Your task to perform on an android device: allow notifications from all sites in the chrome app Image 0: 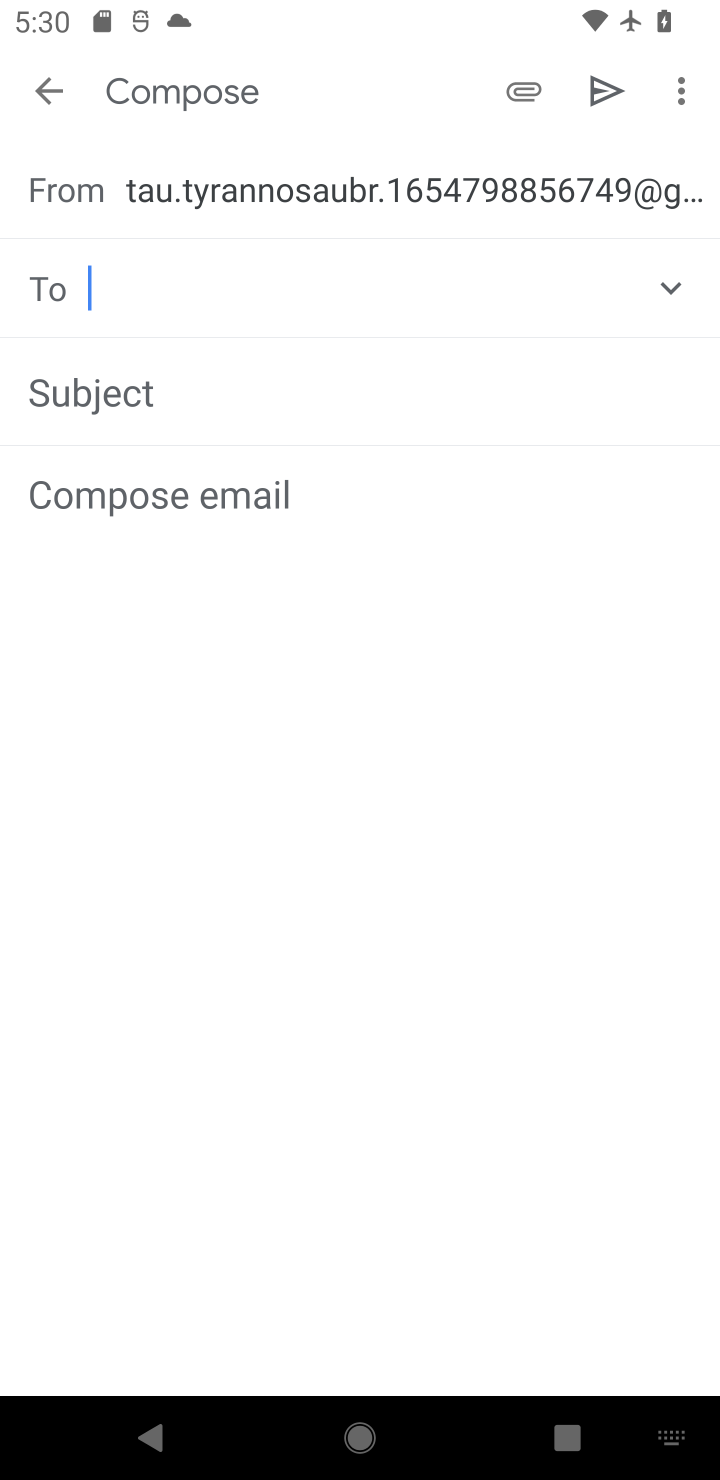
Step 0: press home button
Your task to perform on an android device: allow notifications from all sites in the chrome app Image 1: 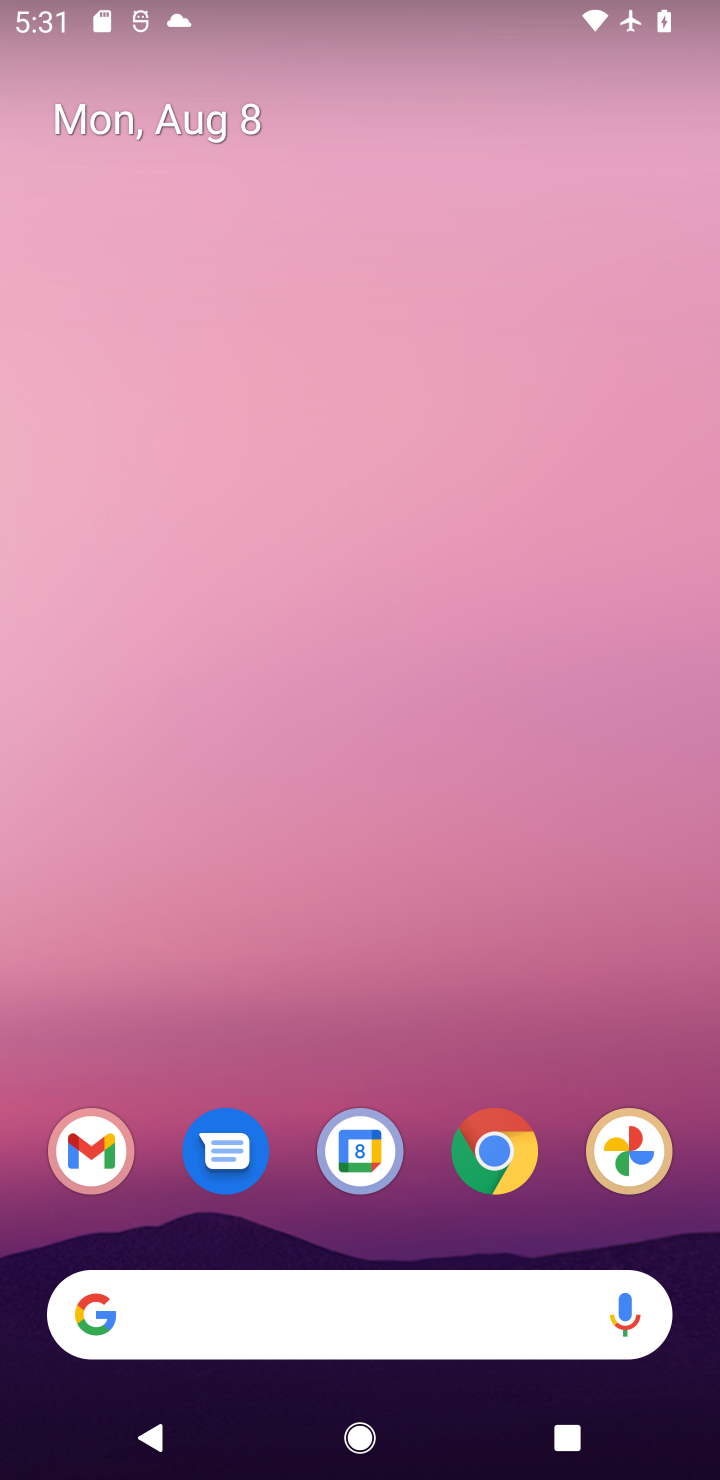
Step 1: click (468, 1173)
Your task to perform on an android device: allow notifications from all sites in the chrome app Image 2: 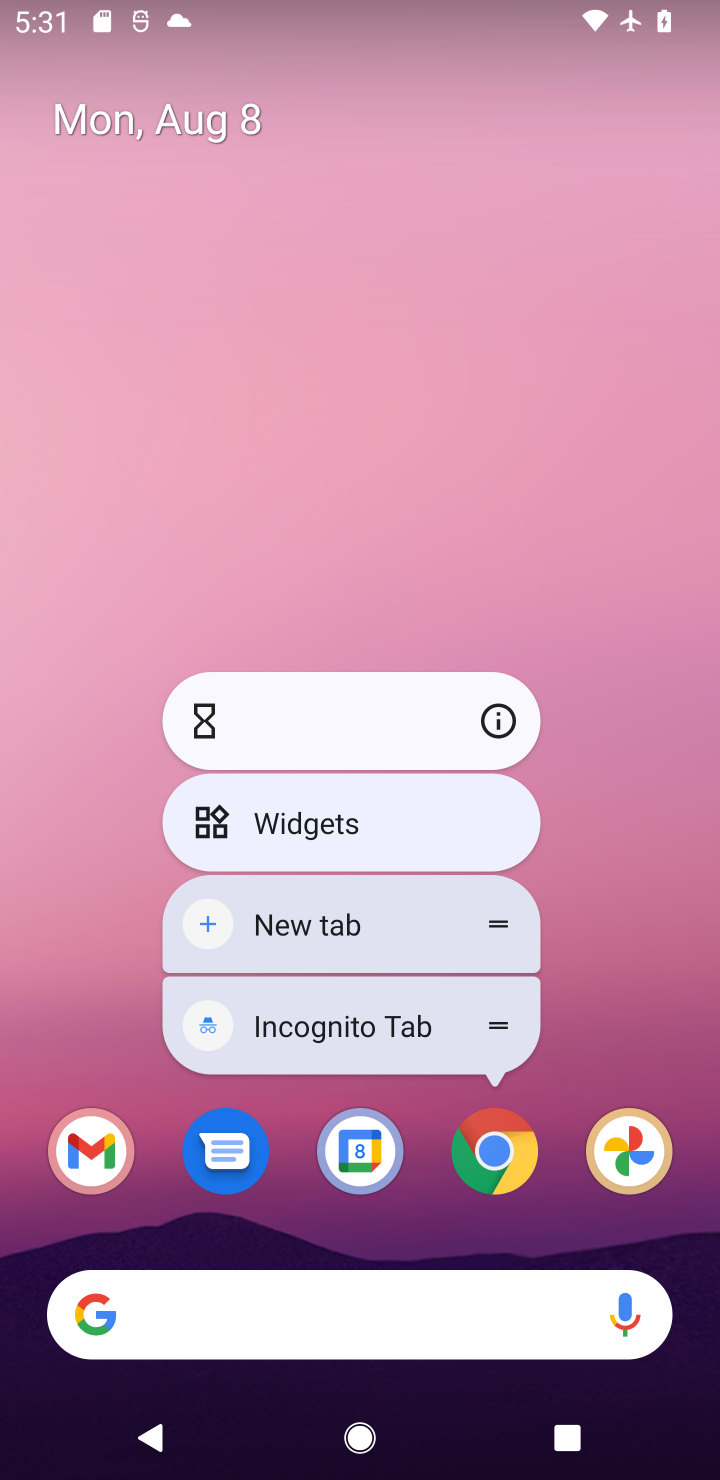
Step 2: click (468, 1173)
Your task to perform on an android device: allow notifications from all sites in the chrome app Image 3: 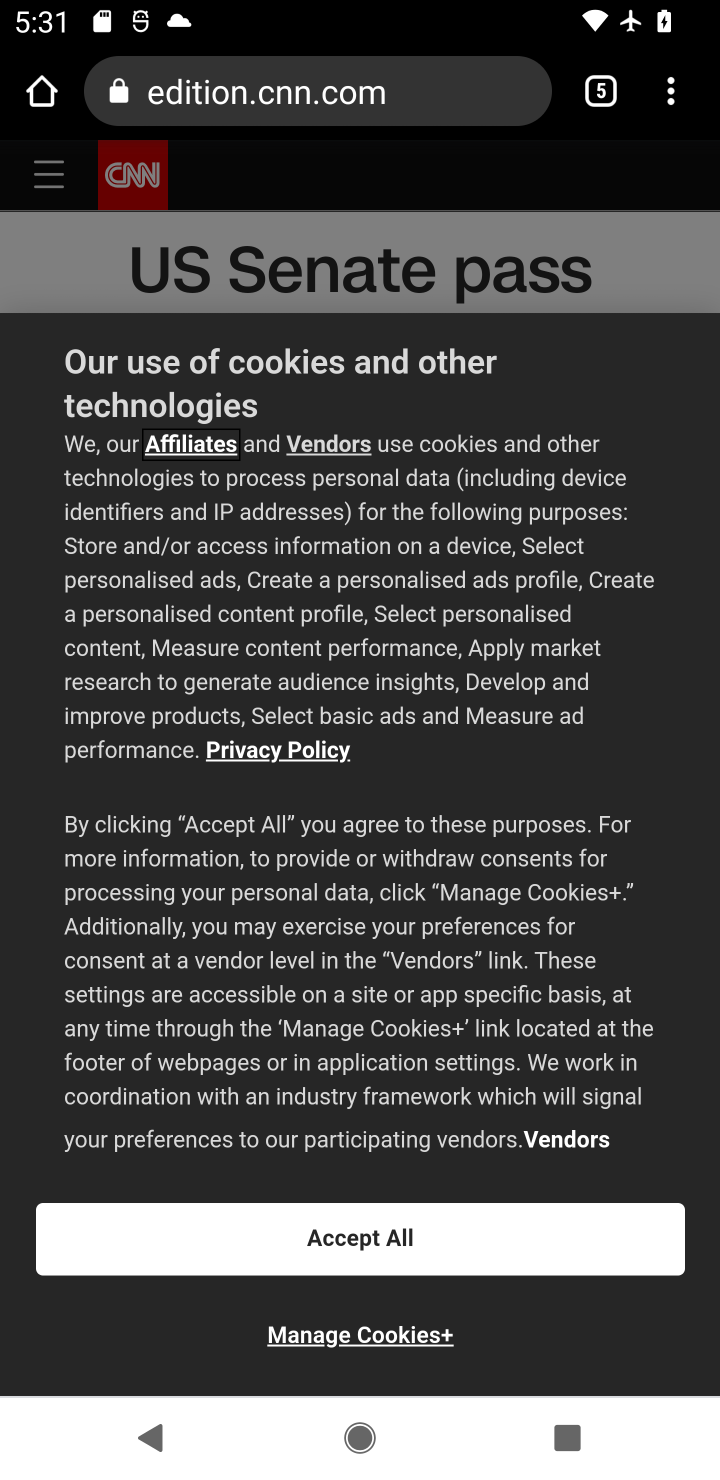
Step 3: click (685, 95)
Your task to perform on an android device: allow notifications from all sites in the chrome app Image 4: 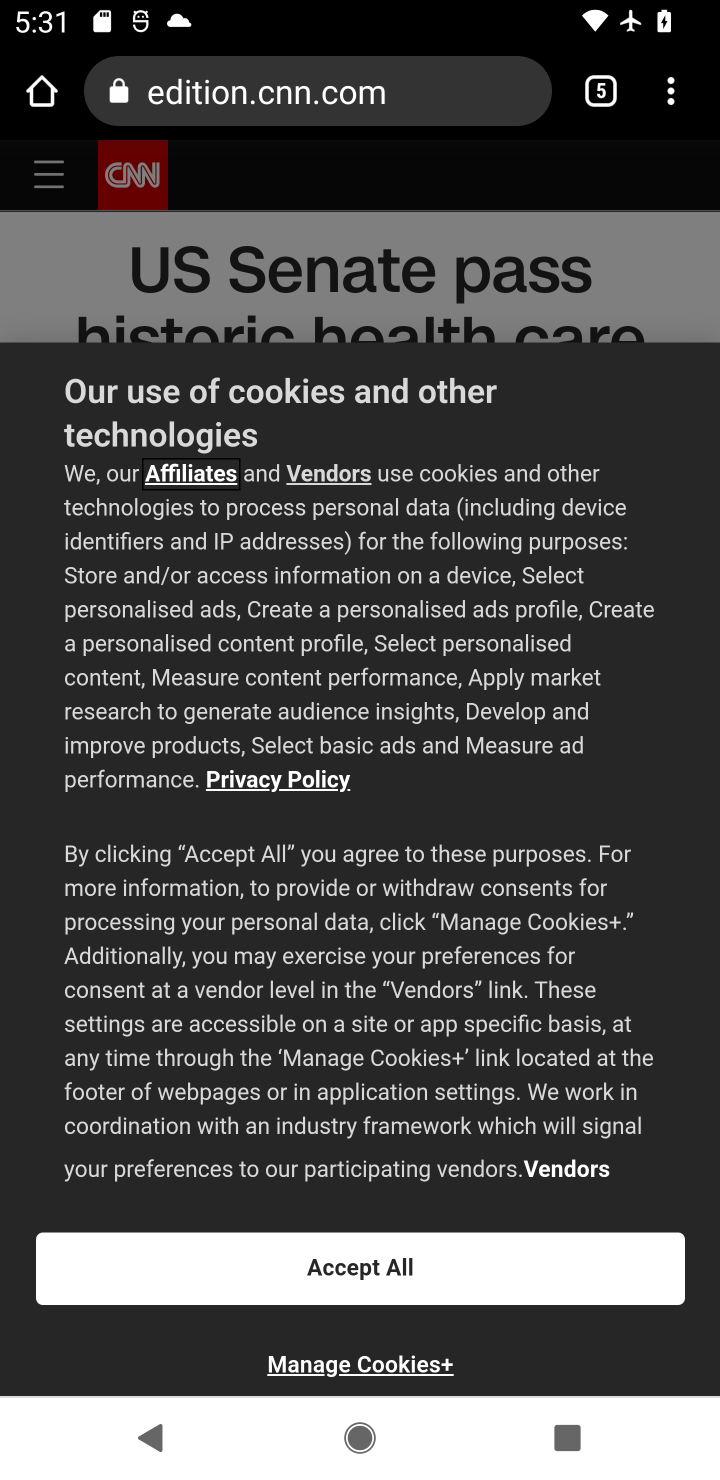
Step 4: drag from (666, 102) to (428, 1275)
Your task to perform on an android device: allow notifications from all sites in the chrome app Image 5: 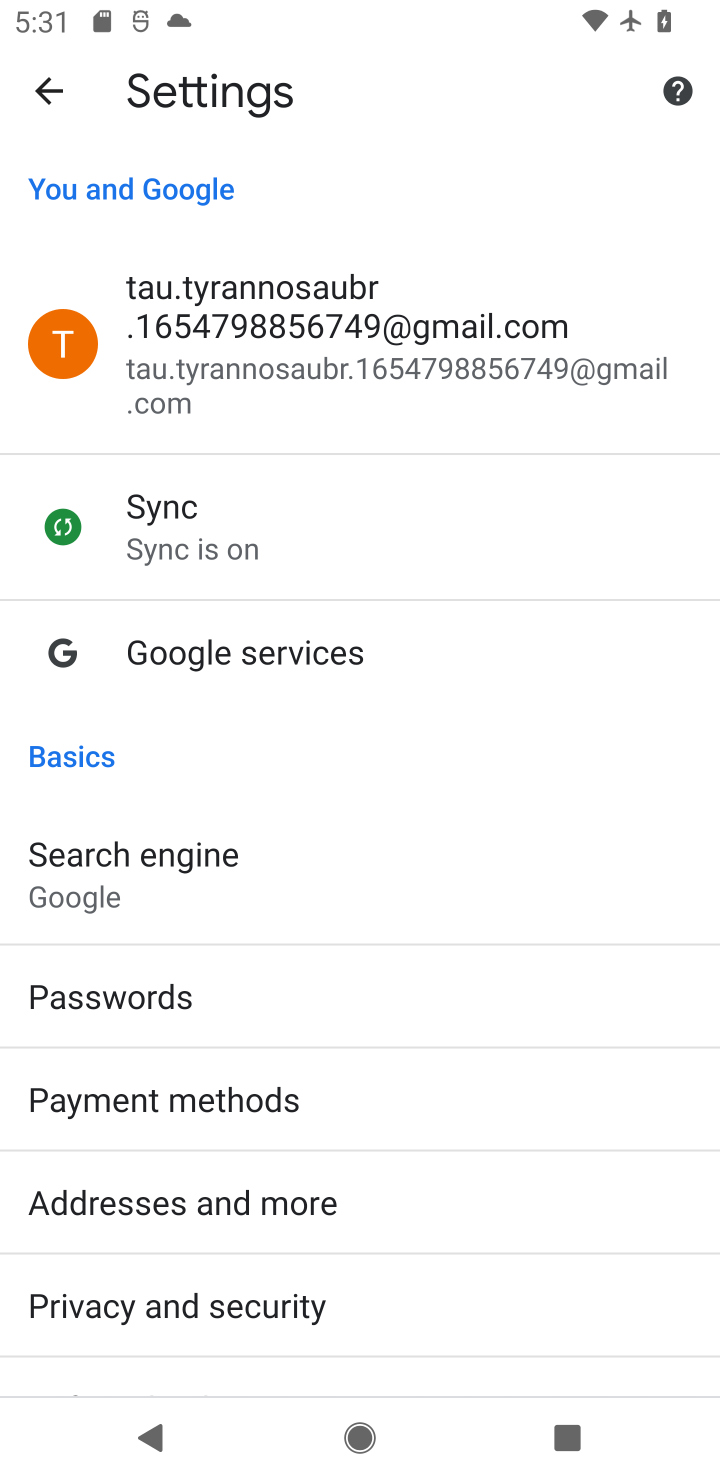
Step 5: drag from (381, 1184) to (438, 618)
Your task to perform on an android device: allow notifications from all sites in the chrome app Image 6: 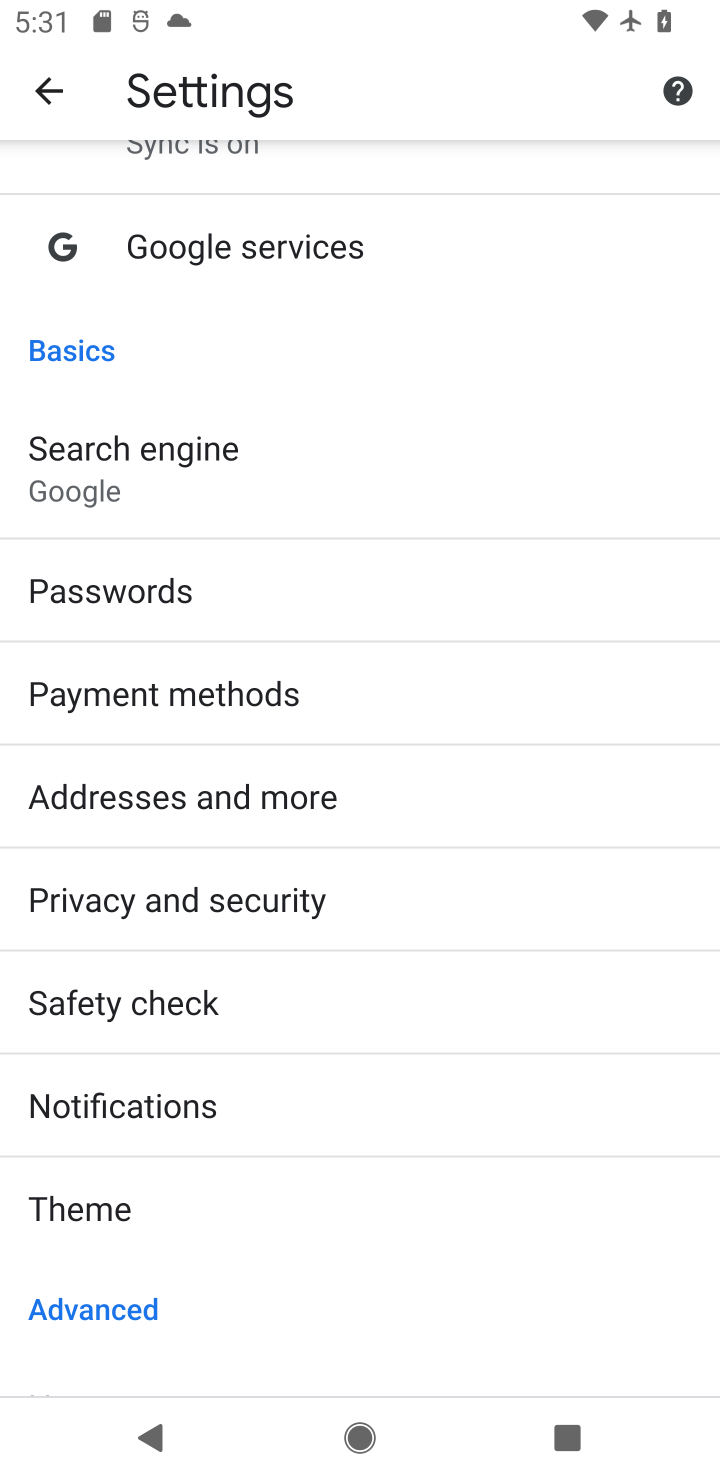
Step 6: drag from (277, 1184) to (376, 506)
Your task to perform on an android device: allow notifications from all sites in the chrome app Image 7: 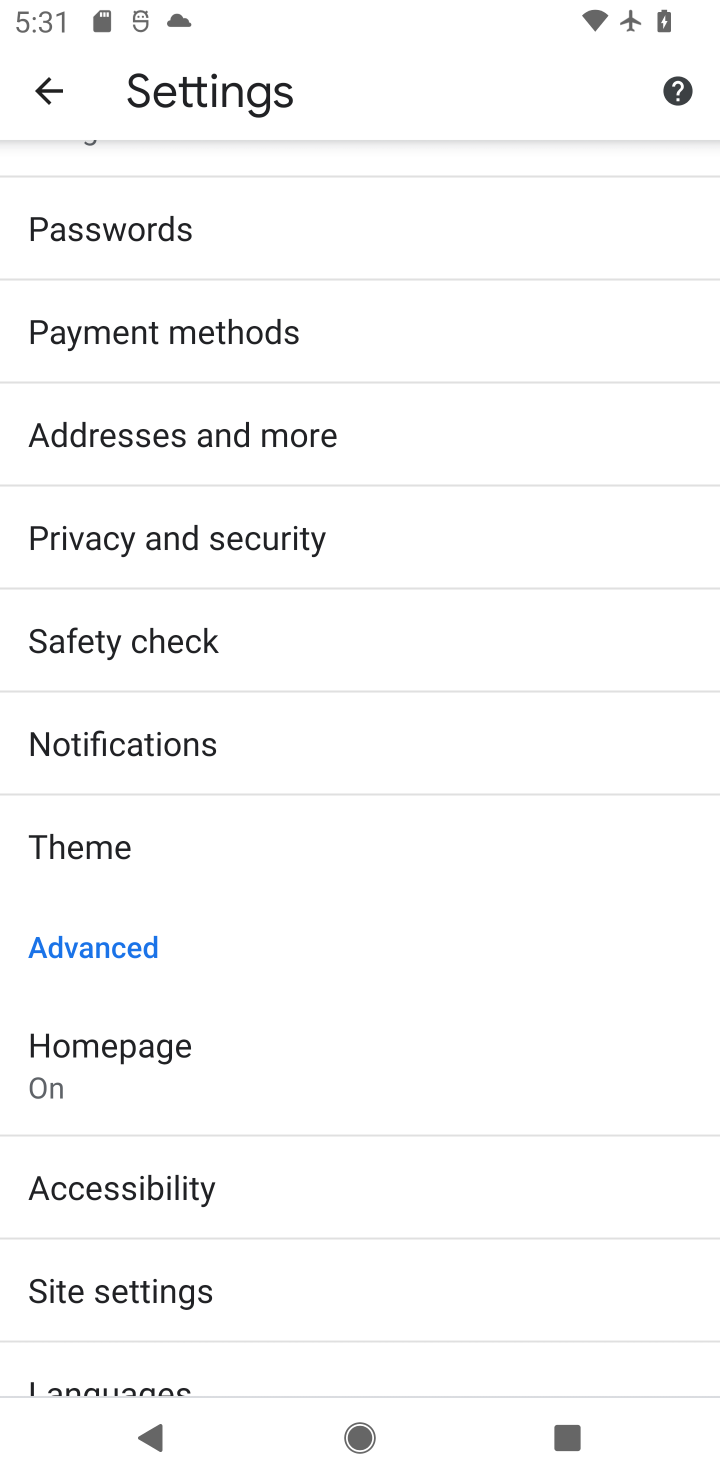
Step 7: click (207, 1310)
Your task to perform on an android device: allow notifications from all sites in the chrome app Image 8: 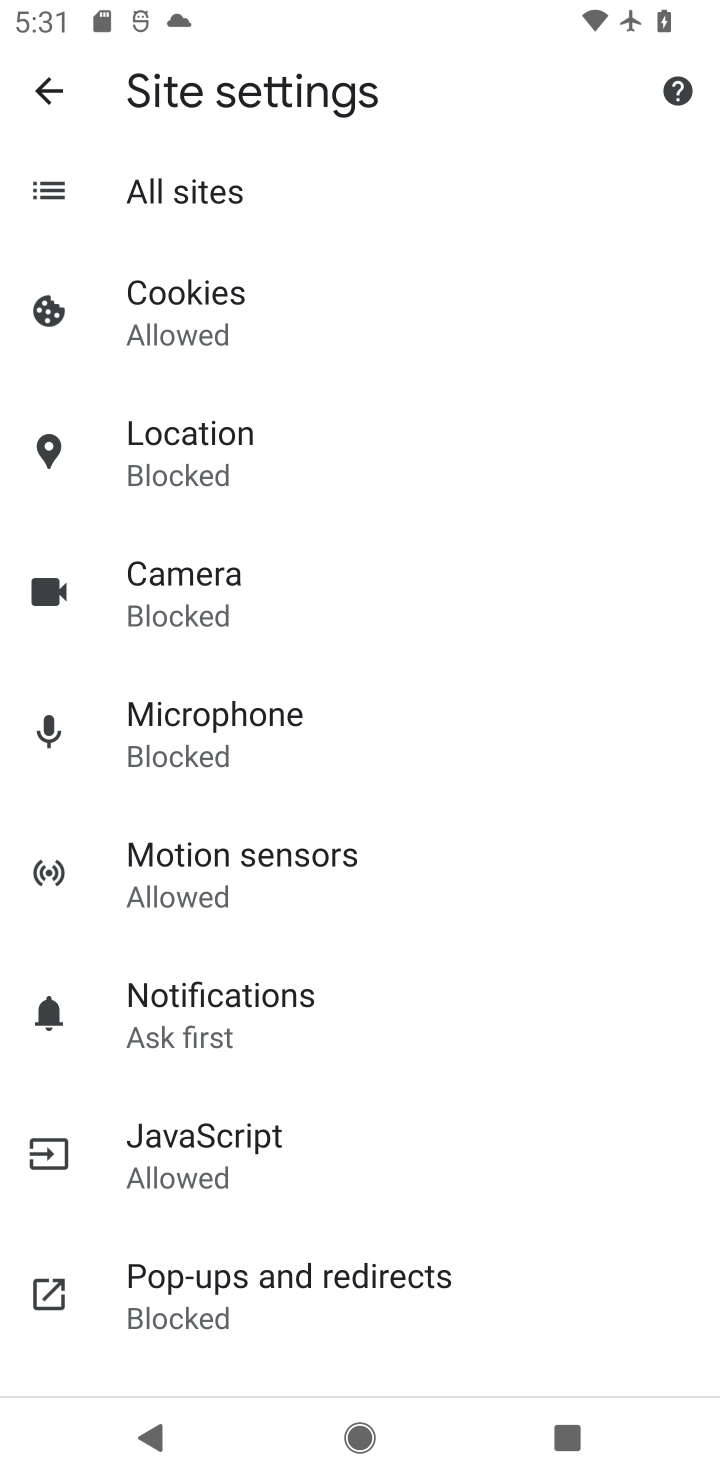
Step 8: click (257, 198)
Your task to perform on an android device: allow notifications from all sites in the chrome app Image 9: 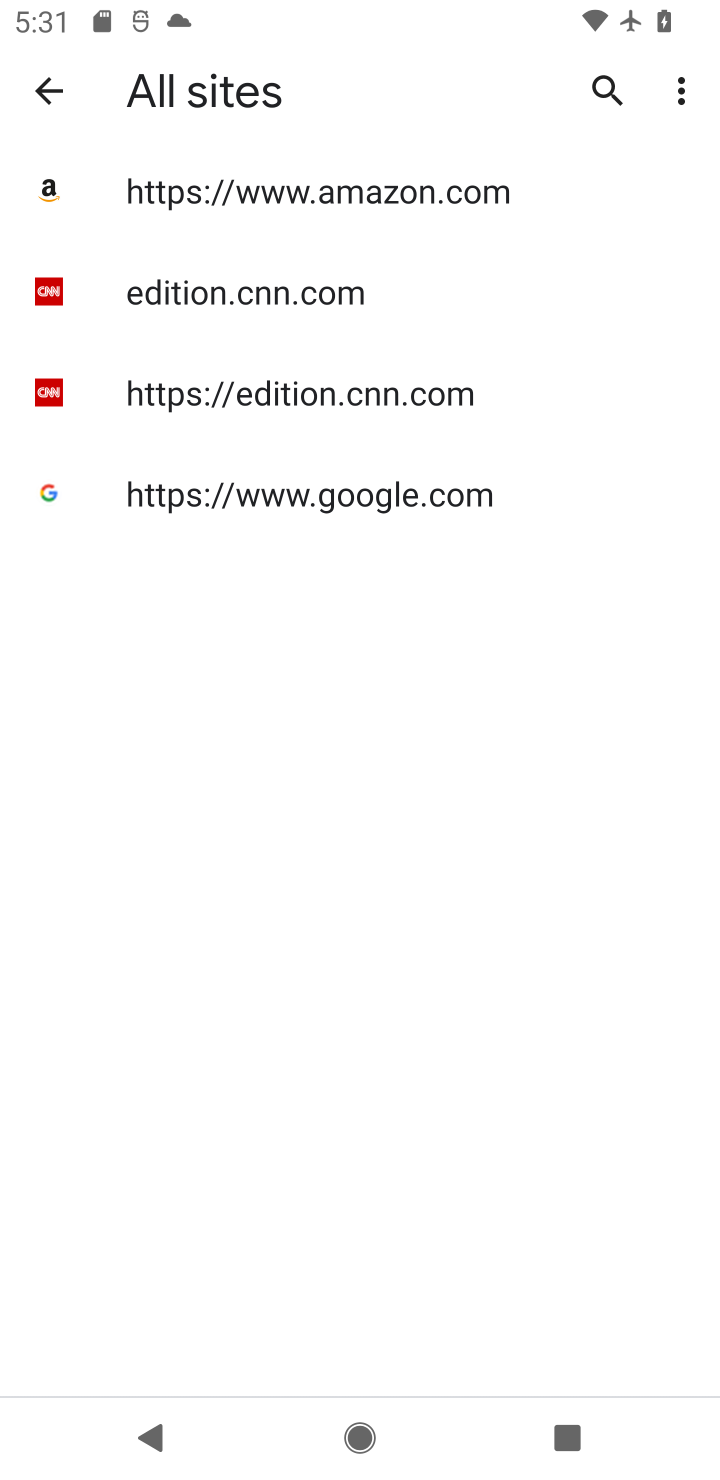
Step 9: click (362, 506)
Your task to perform on an android device: allow notifications from all sites in the chrome app Image 10: 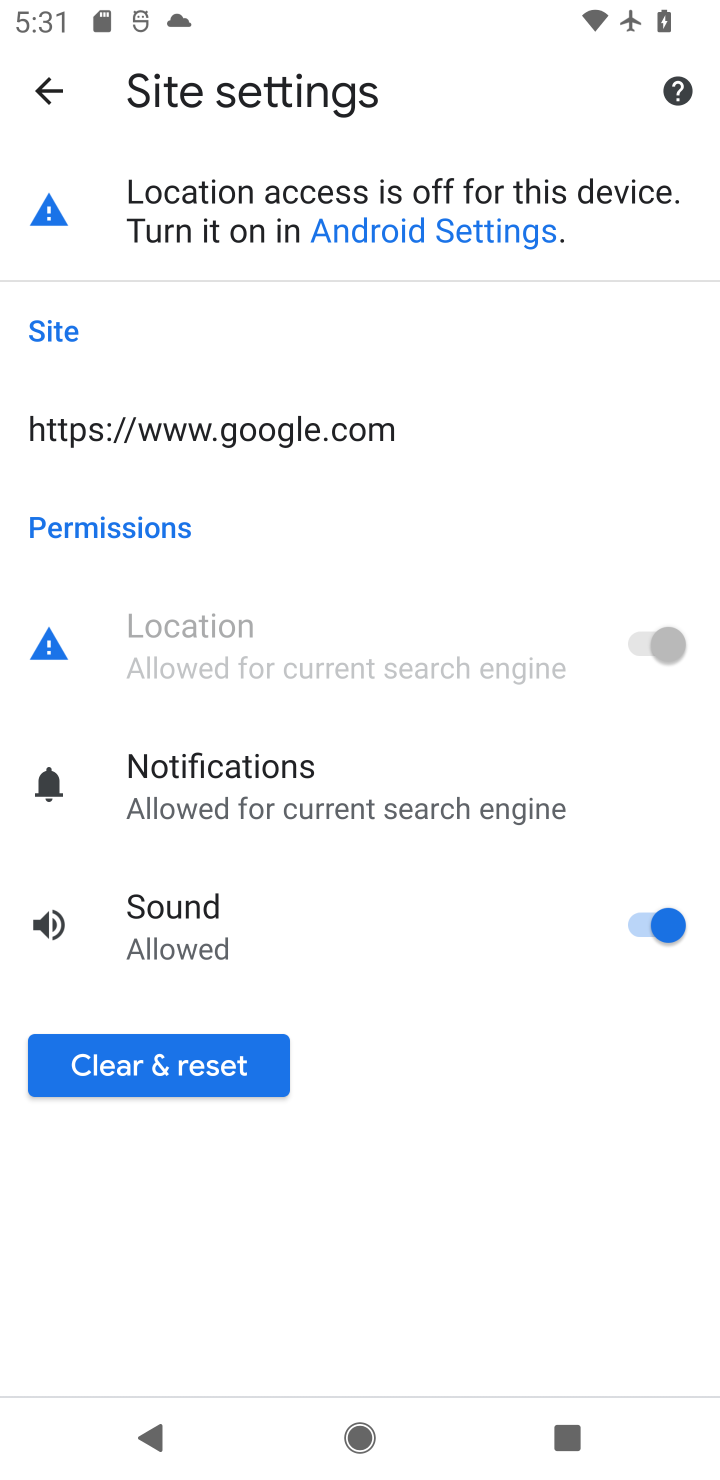
Step 10: click (382, 795)
Your task to perform on an android device: allow notifications from all sites in the chrome app Image 11: 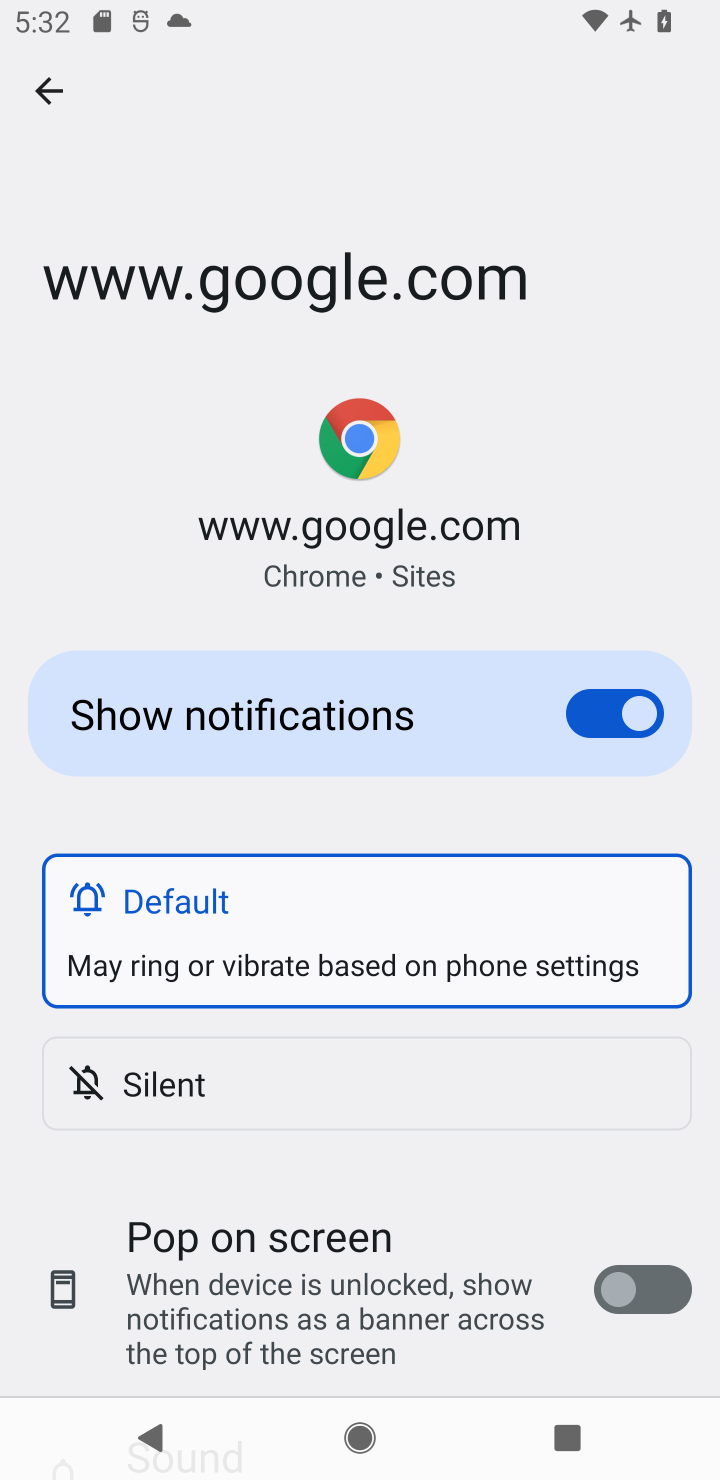
Step 11: task complete